Your task to perform on an android device: Open Amazon Image 0: 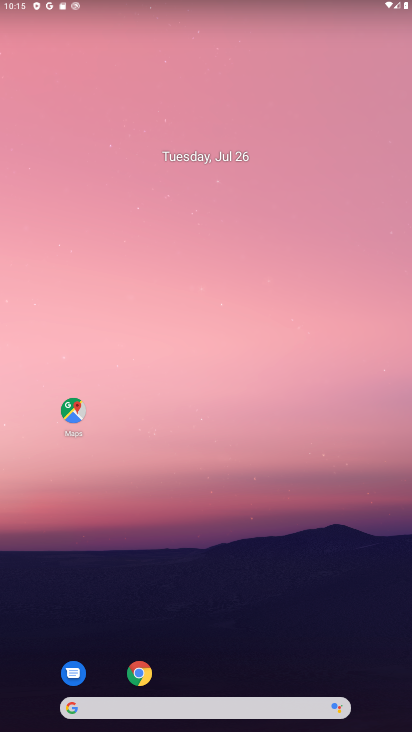
Step 0: click (137, 671)
Your task to perform on an android device: Open Amazon Image 1: 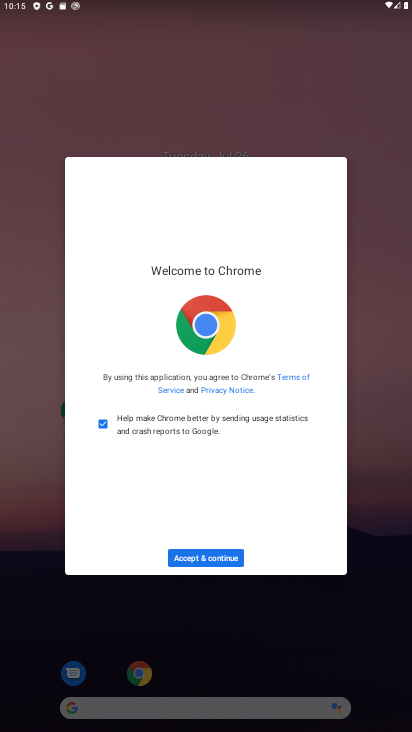
Step 1: click (221, 564)
Your task to perform on an android device: Open Amazon Image 2: 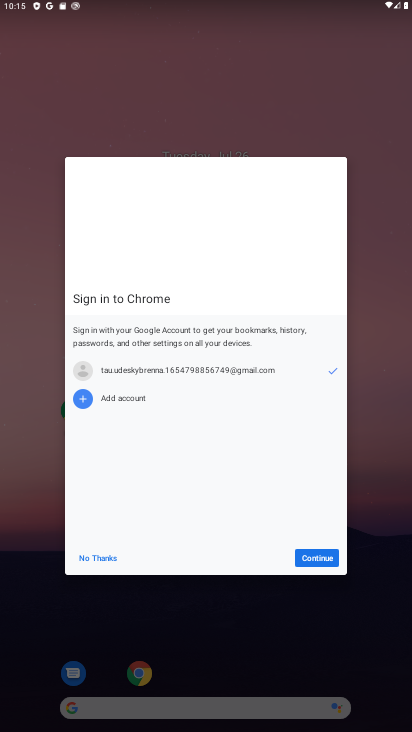
Step 2: click (325, 560)
Your task to perform on an android device: Open Amazon Image 3: 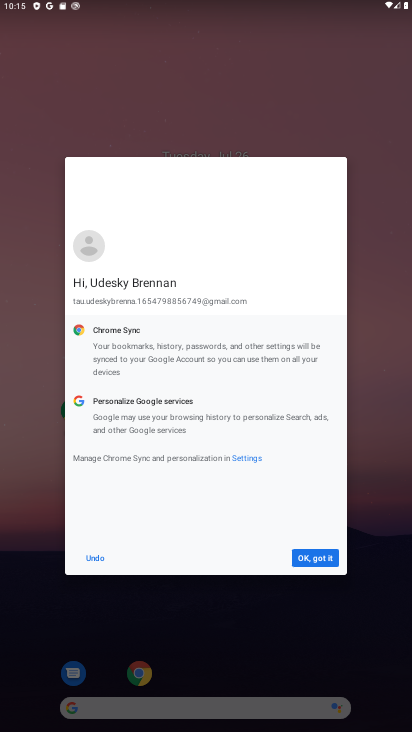
Step 3: click (325, 559)
Your task to perform on an android device: Open Amazon Image 4: 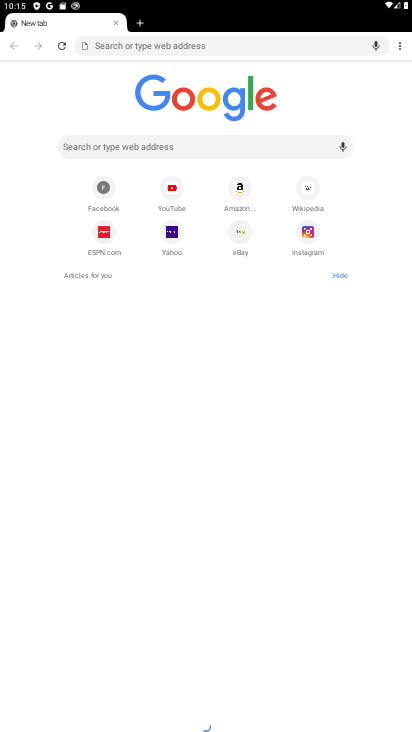
Step 4: click (242, 189)
Your task to perform on an android device: Open Amazon Image 5: 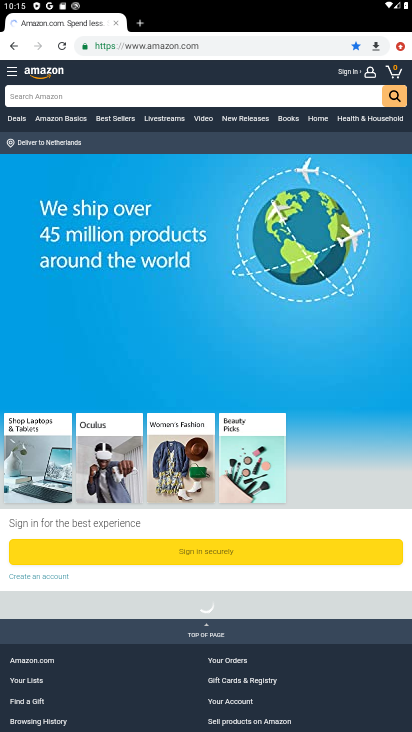
Step 5: task complete